Your task to perform on an android device: turn off translation in the chrome app Image 0: 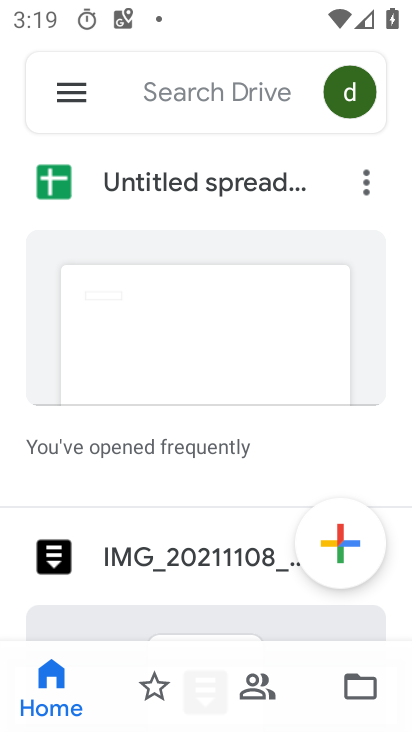
Step 0: press home button
Your task to perform on an android device: turn off translation in the chrome app Image 1: 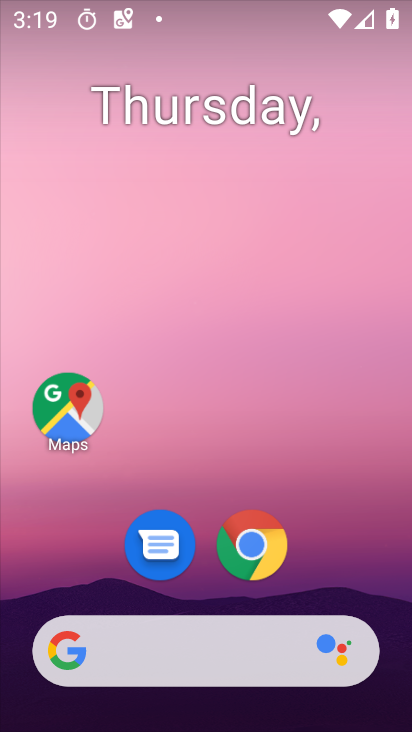
Step 1: click (246, 544)
Your task to perform on an android device: turn off translation in the chrome app Image 2: 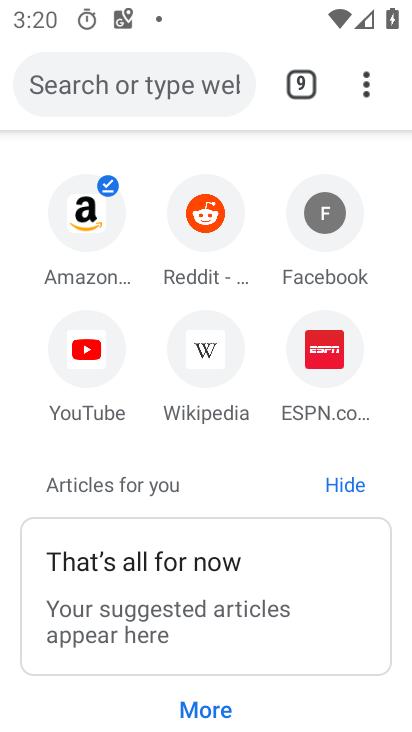
Step 2: click (367, 92)
Your task to perform on an android device: turn off translation in the chrome app Image 3: 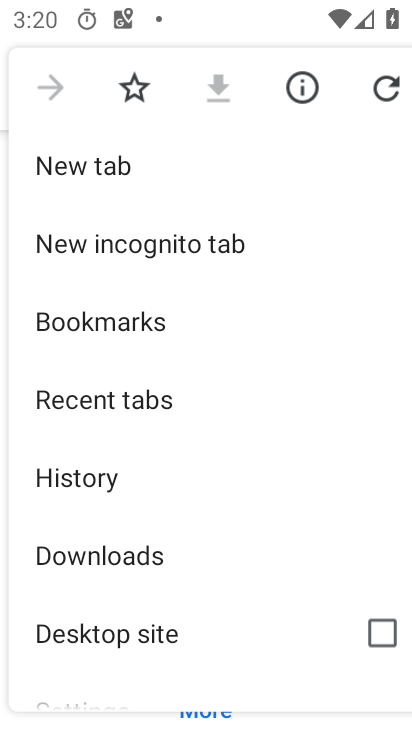
Step 3: drag from (112, 659) to (108, 274)
Your task to perform on an android device: turn off translation in the chrome app Image 4: 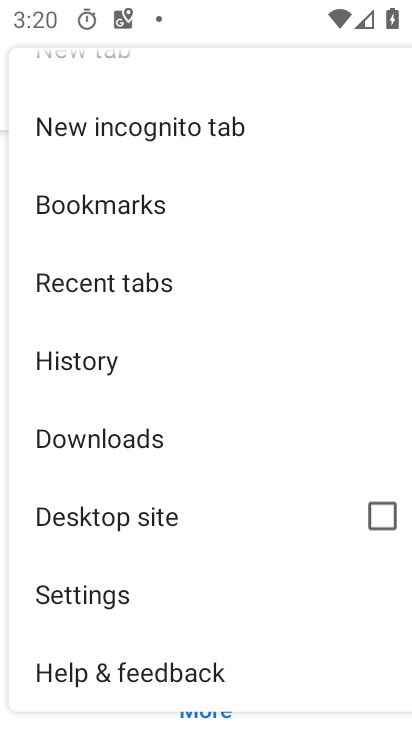
Step 4: click (76, 594)
Your task to perform on an android device: turn off translation in the chrome app Image 5: 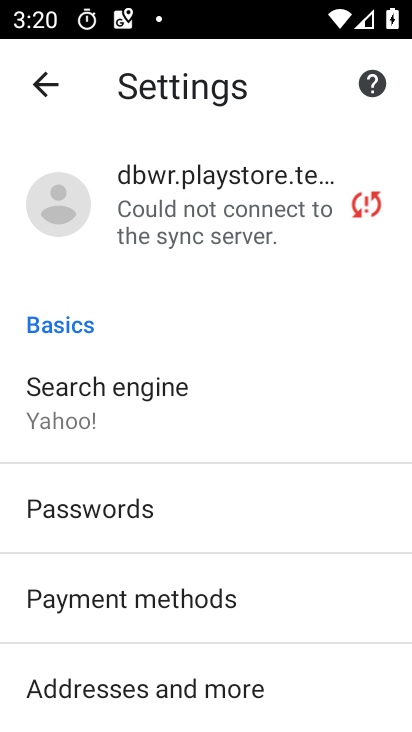
Step 5: drag from (118, 671) to (141, 247)
Your task to perform on an android device: turn off translation in the chrome app Image 6: 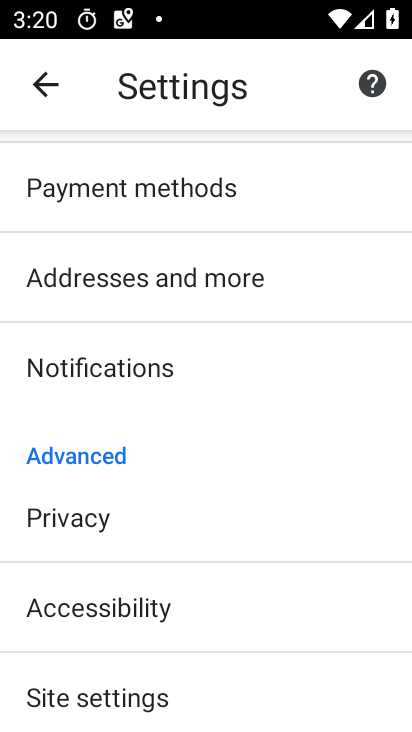
Step 6: drag from (113, 658) to (112, 261)
Your task to perform on an android device: turn off translation in the chrome app Image 7: 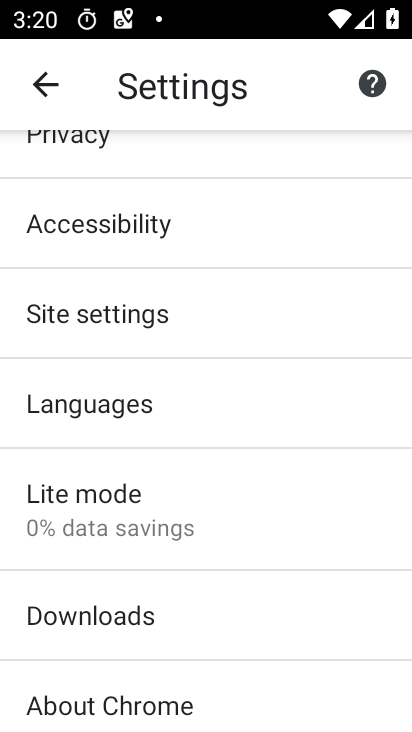
Step 7: click (107, 402)
Your task to perform on an android device: turn off translation in the chrome app Image 8: 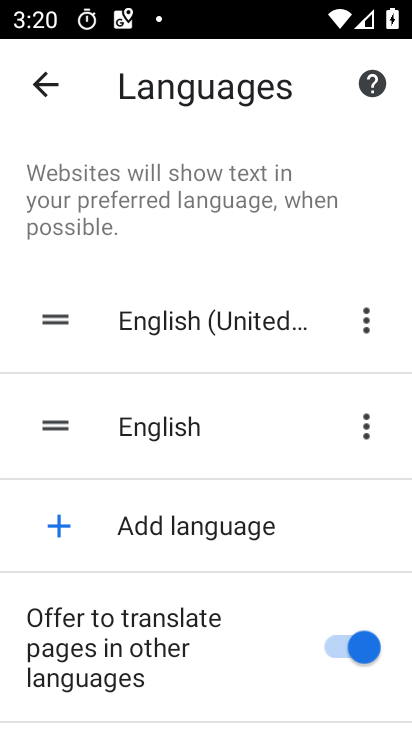
Step 8: click (336, 655)
Your task to perform on an android device: turn off translation in the chrome app Image 9: 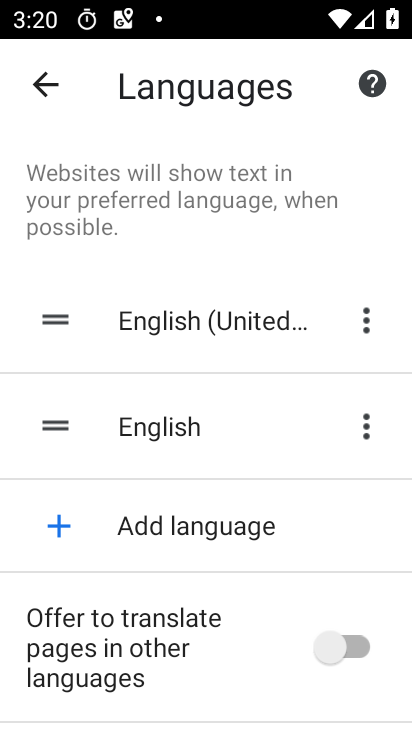
Step 9: task complete